Your task to perform on an android device: read, delete, or share a saved page in the chrome app Image 0: 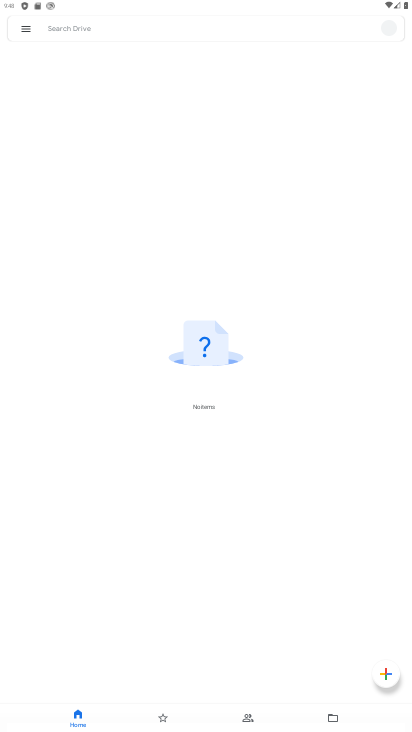
Step 0: press home button
Your task to perform on an android device: read, delete, or share a saved page in the chrome app Image 1: 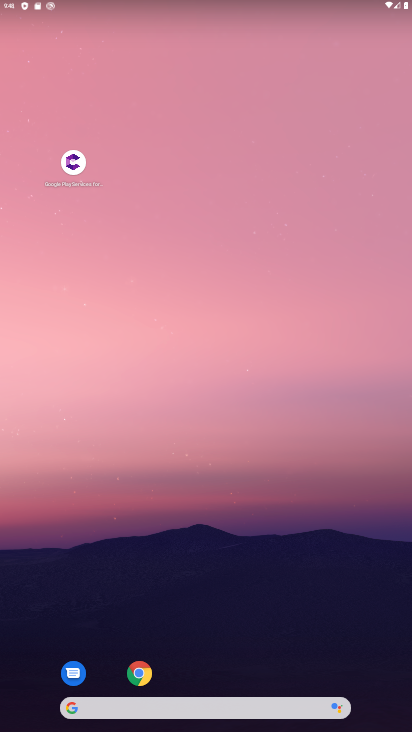
Step 1: drag from (300, 569) to (278, 70)
Your task to perform on an android device: read, delete, or share a saved page in the chrome app Image 2: 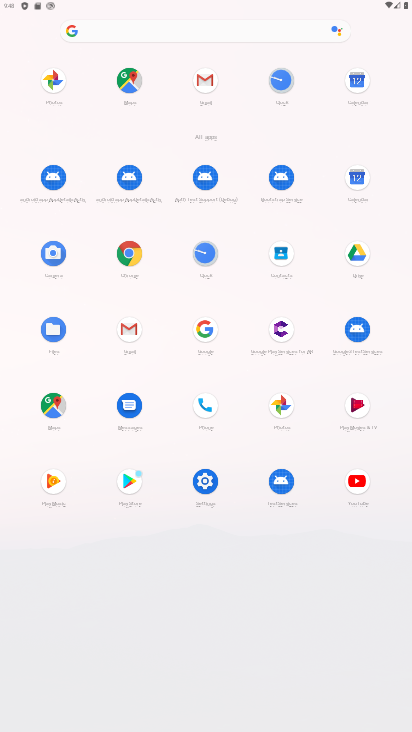
Step 2: click (130, 249)
Your task to perform on an android device: read, delete, or share a saved page in the chrome app Image 3: 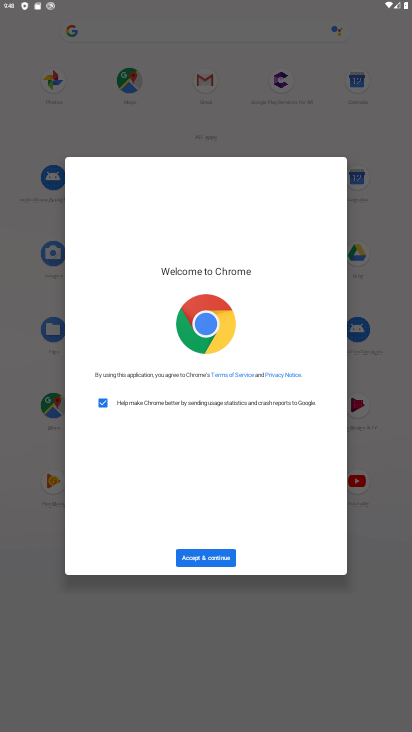
Step 3: click (203, 560)
Your task to perform on an android device: read, delete, or share a saved page in the chrome app Image 4: 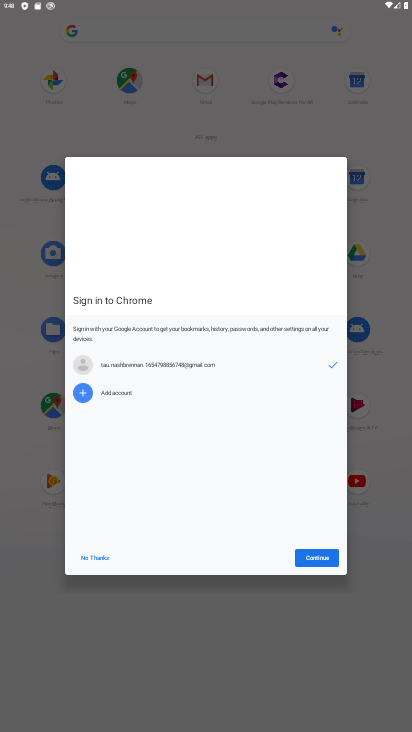
Step 4: click (318, 559)
Your task to perform on an android device: read, delete, or share a saved page in the chrome app Image 5: 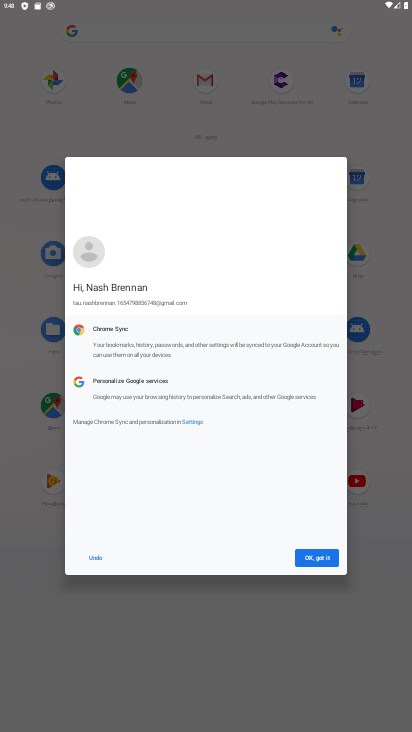
Step 5: click (333, 566)
Your task to perform on an android device: read, delete, or share a saved page in the chrome app Image 6: 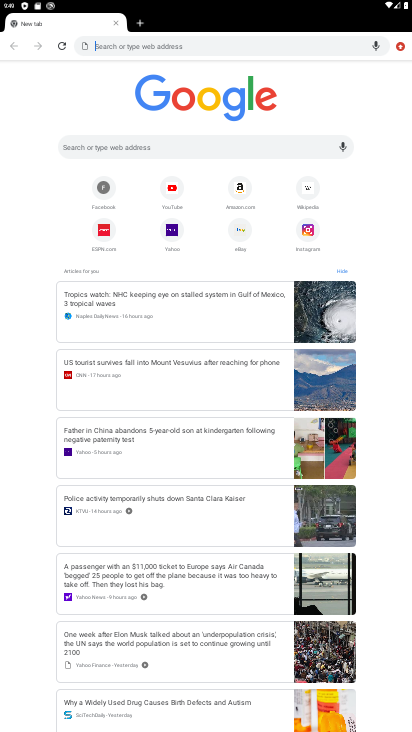
Step 6: task complete